Your task to perform on an android device: change the clock display to digital Image 0: 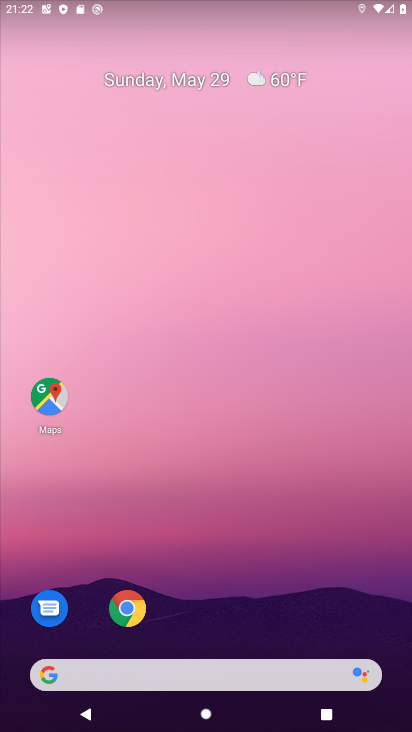
Step 0: drag from (346, 599) to (357, 218)
Your task to perform on an android device: change the clock display to digital Image 1: 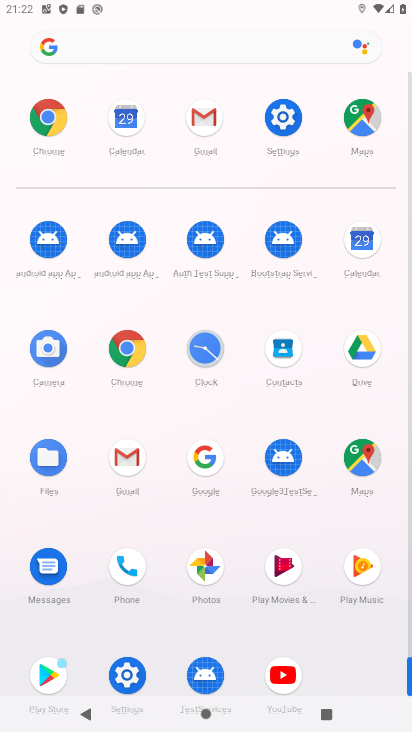
Step 1: click (202, 355)
Your task to perform on an android device: change the clock display to digital Image 2: 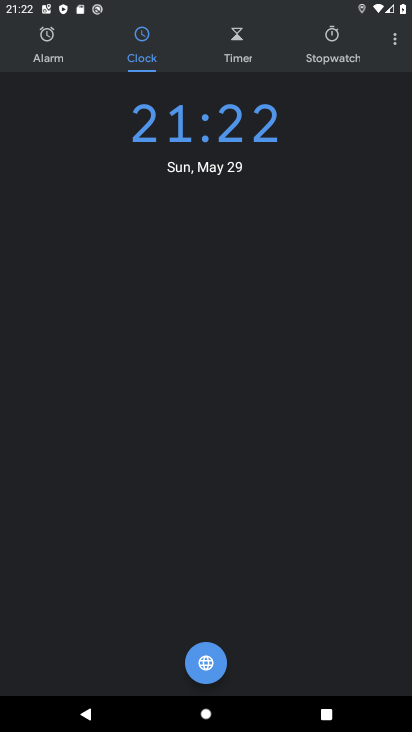
Step 2: click (393, 50)
Your task to perform on an android device: change the clock display to digital Image 3: 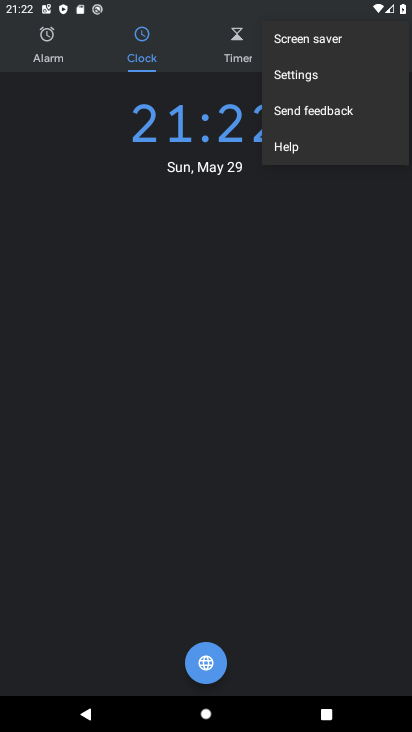
Step 3: click (333, 72)
Your task to perform on an android device: change the clock display to digital Image 4: 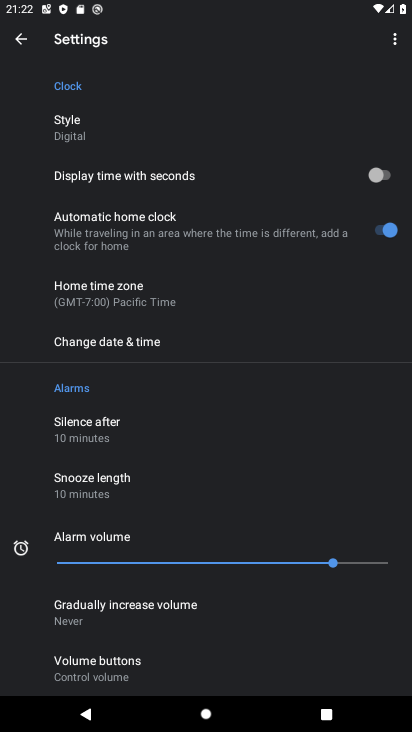
Step 4: task complete